Your task to perform on an android device: turn on showing notifications on the lock screen Image 0: 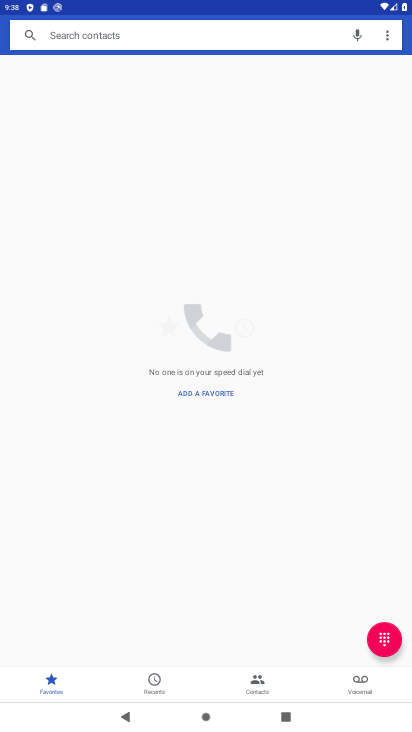
Step 0: press home button
Your task to perform on an android device: turn on showing notifications on the lock screen Image 1: 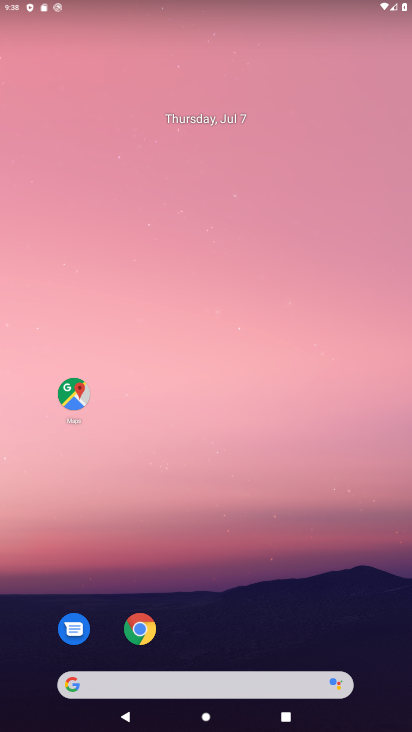
Step 1: drag from (250, 562) to (263, 22)
Your task to perform on an android device: turn on showing notifications on the lock screen Image 2: 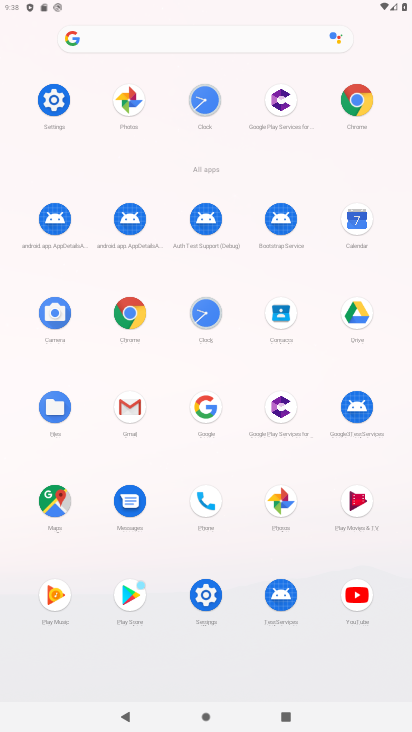
Step 2: click (55, 102)
Your task to perform on an android device: turn on showing notifications on the lock screen Image 3: 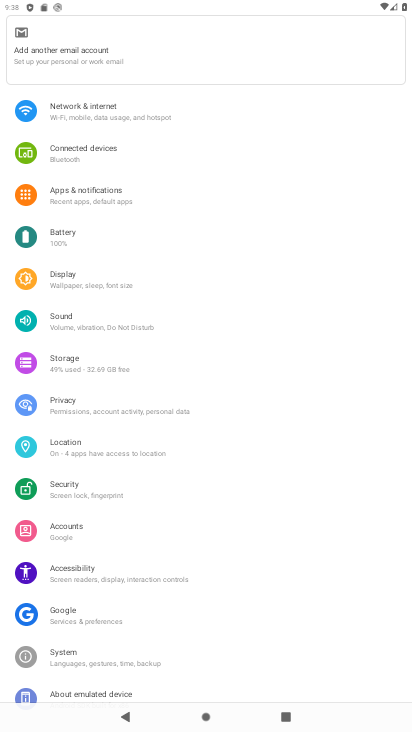
Step 3: click (84, 203)
Your task to perform on an android device: turn on showing notifications on the lock screen Image 4: 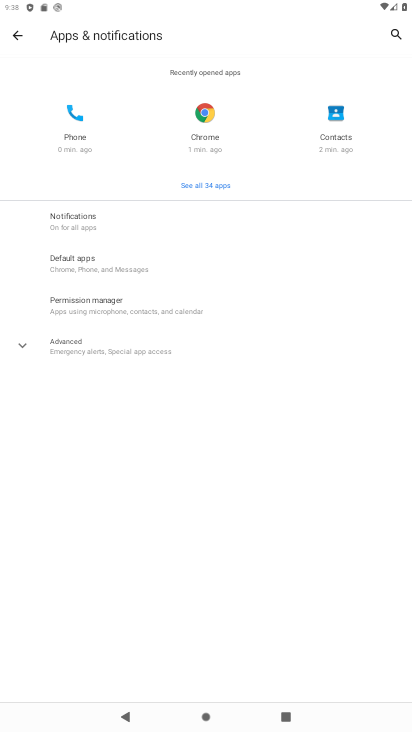
Step 4: click (80, 217)
Your task to perform on an android device: turn on showing notifications on the lock screen Image 5: 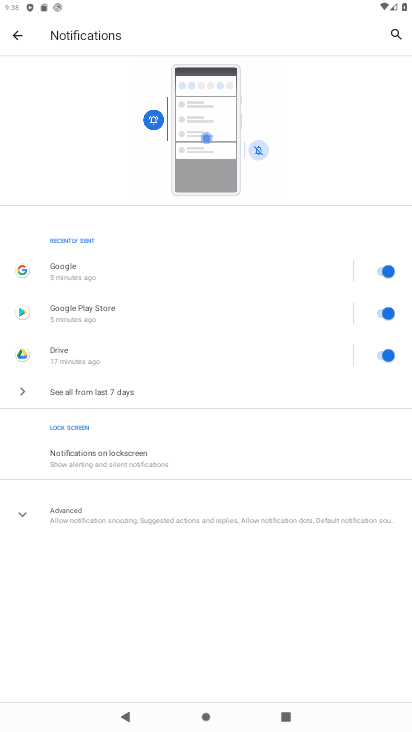
Step 5: click (83, 450)
Your task to perform on an android device: turn on showing notifications on the lock screen Image 6: 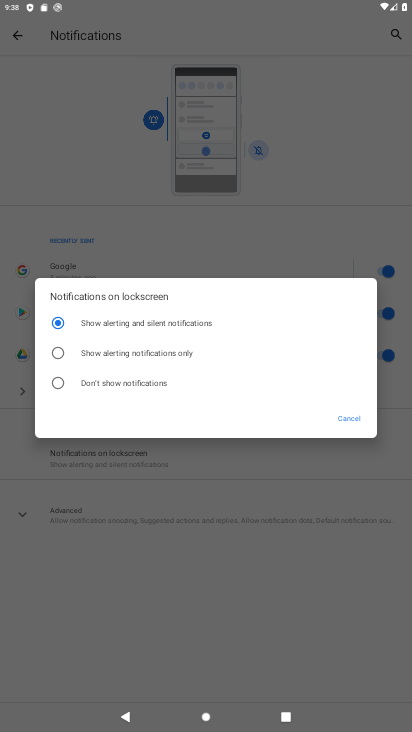
Step 6: click (128, 325)
Your task to perform on an android device: turn on showing notifications on the lock screen Image 7: 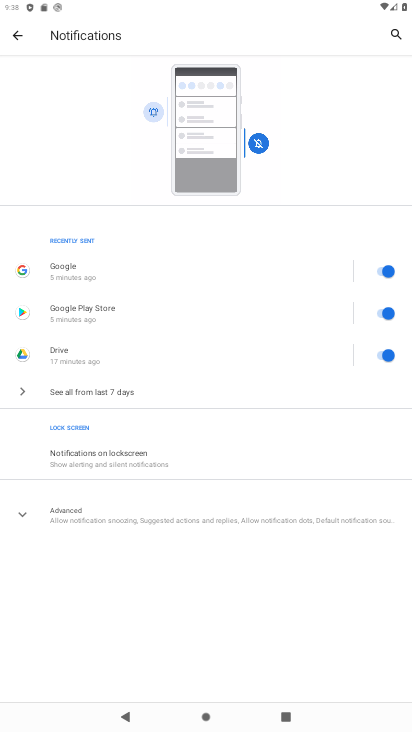
Step 7: task complete